Your task to perform on an android device: Show the shopping cart on walmart. Search for "jbl charge 4" on walmart, select the first entry, and add it to the cart. Image 0: 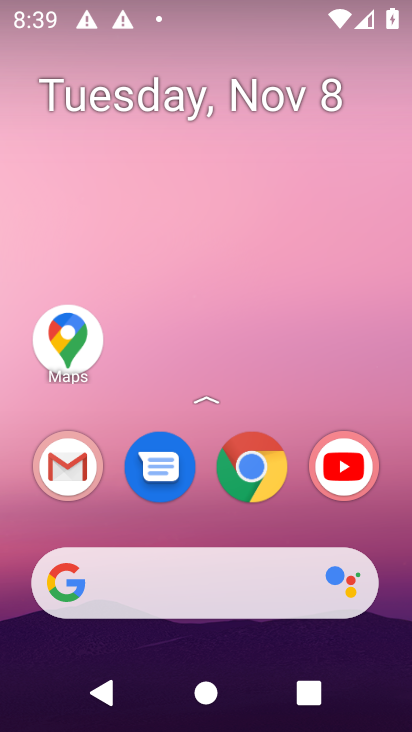
Step 0: click (192, 594)
Your task to perform on an android device: Show the shopping cart on walmart. Search for "jbl charge 4" on walmart, select the first entry, and add it to the cart. Image 1: 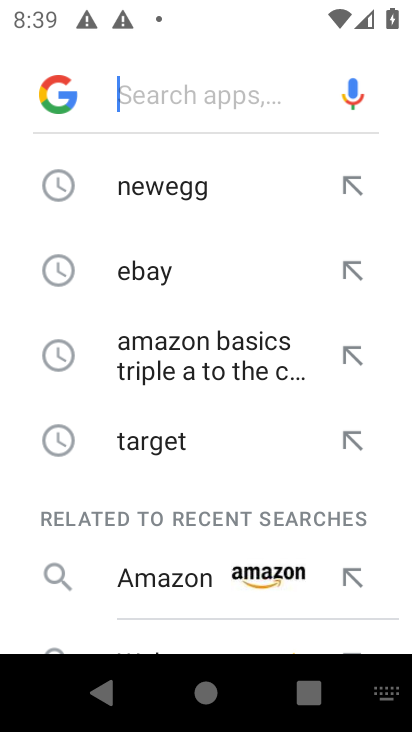
Step 1: type "walmart"
Your task to perform on an android device: Show the shopping cart on walmart. Search for "jbl charge 4" on walmart, select the first entry, and add it to the cart. Image 2: 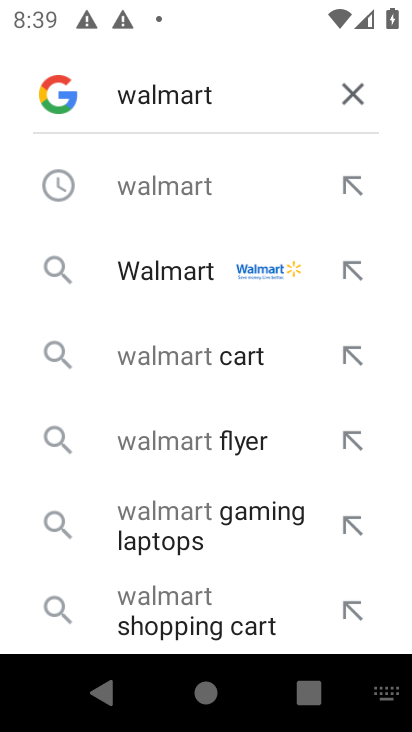
Step 2: click (187, 267)
Your task to perform on an android device: Show the shopping cart on walmart. Search for "jbl charge 4" on walmart, select the first entry, and add it to the cart. Image 3: 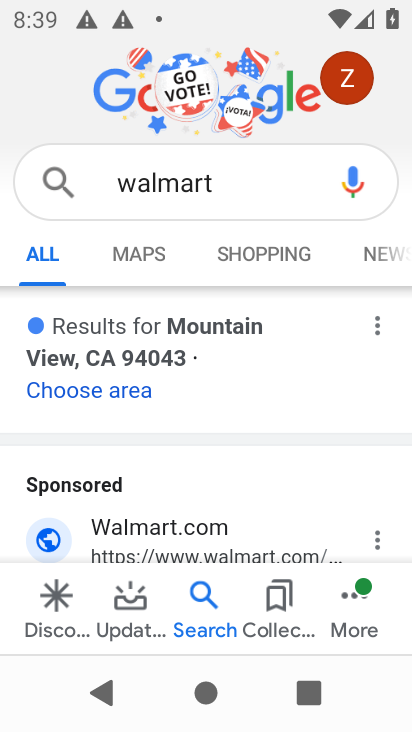
Step 3: click (126, 524)
Your task to perform on an android device: Show the shopping cart on walmart. Search for "jbl charge 4" on walmart, select the first entry, and add it to the cart. Image 4: 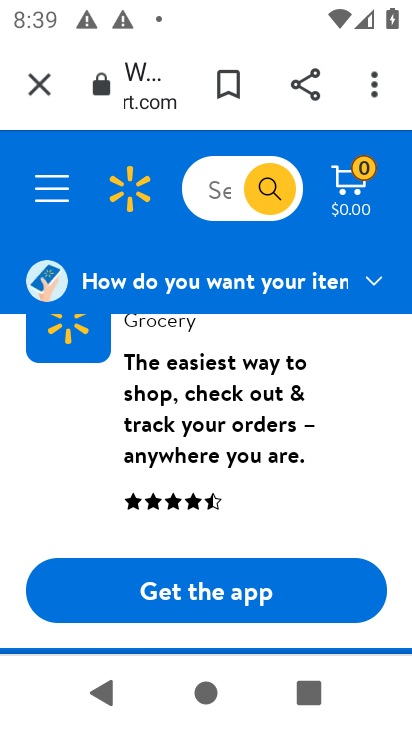
Step 4: click (223, 197)
Your task to perform on an android device: Show the shopping cart on walmart. Search for "jbl charge 4" on walmart, select the first entry, and add it to the cart. Image 5: 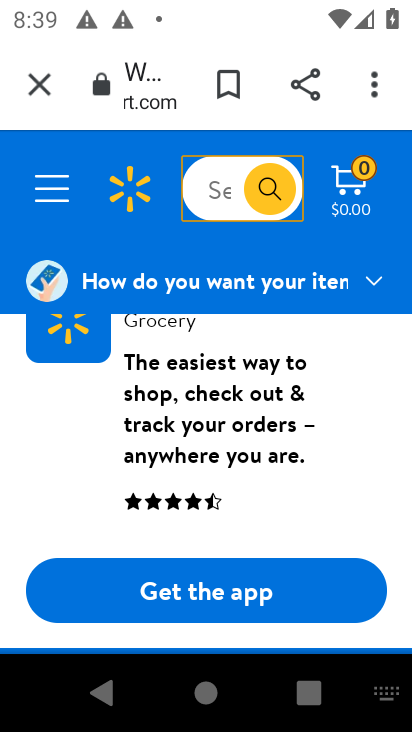
Step 5: type "jbl charge 4"
Your task to perform on an android device: Show the shopping cart on walmart. Search for "jbl charge 4" on walmart, select the first entry, and add it to the cart. Image 6: 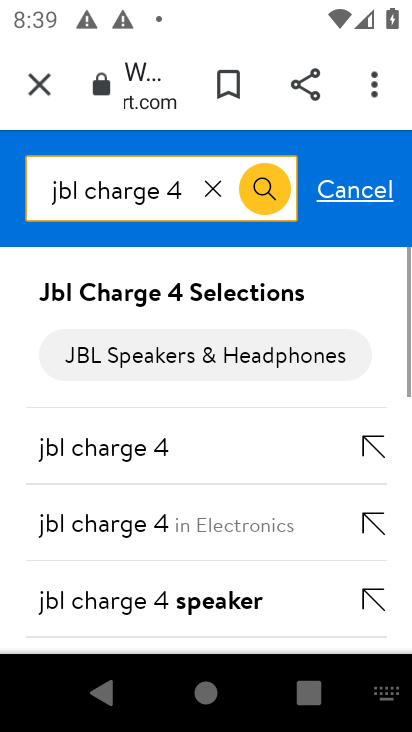
Step 6: click (191, 469)
Your task to perform on an android device: Show the shopping cart on walmart. Search for "jbl charge 4" on walmart, select the first entry, and add it to the cart. Image 7: 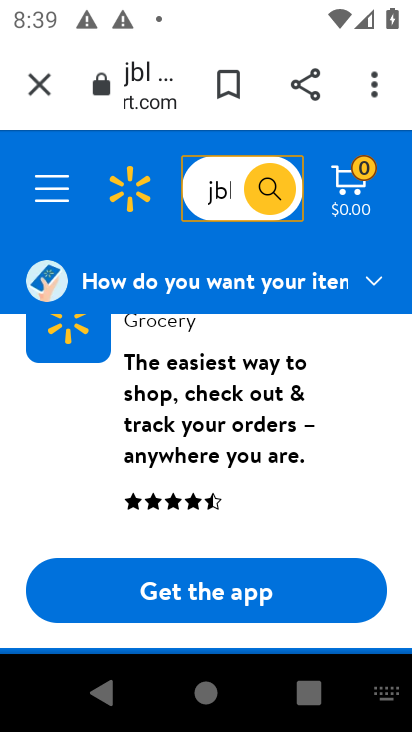
Step 7: click (364, 292)
Your task to perform on an android device: Show the shopping cart on walmart. Search for "jbl charge 4" on walmart, select the first entry, and add it to the cart. Image 8: 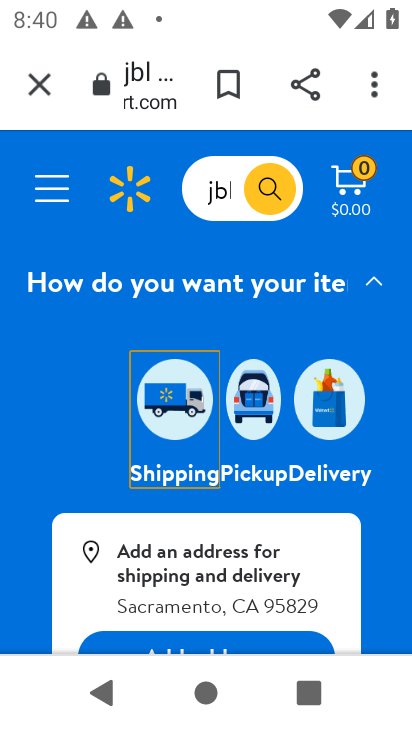
Step 8: task complete